Your task to perform on an android device: open chrome privacy settings Image 0: 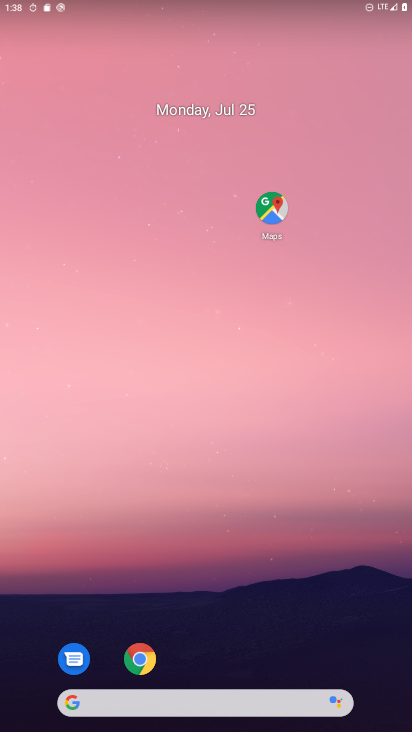
Step 0: click (149, 666)
Your task to perform on an android device: open chrome privacy settings Image 1: 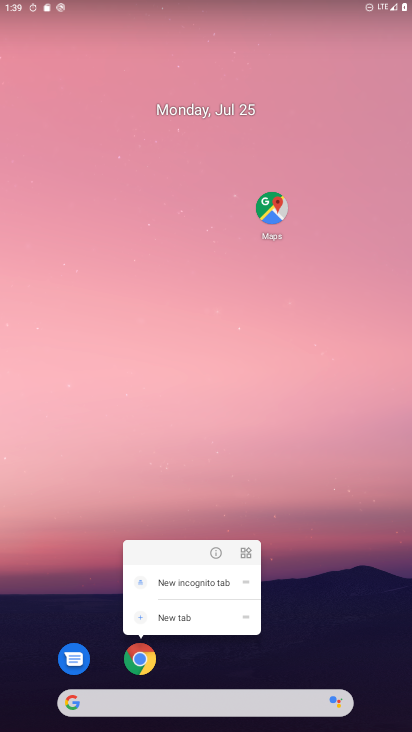
Step 1: click (134, 670)
Your task to perform on an android device: open chrome privacy settings Image 2: 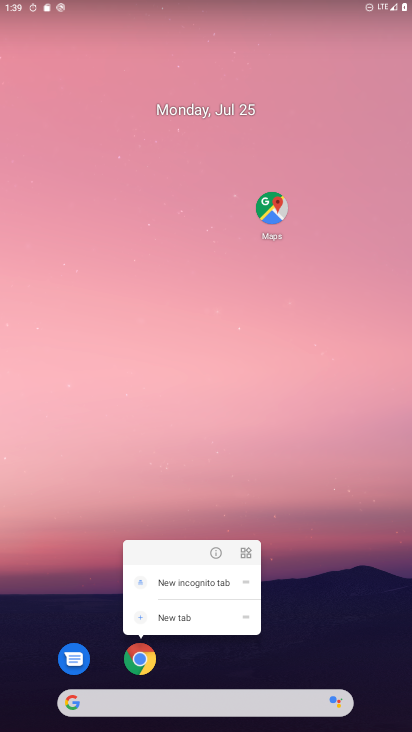
Step 2: click (151, 663)
Your task to perform on an android device: open chrome privacy settings Image 3: 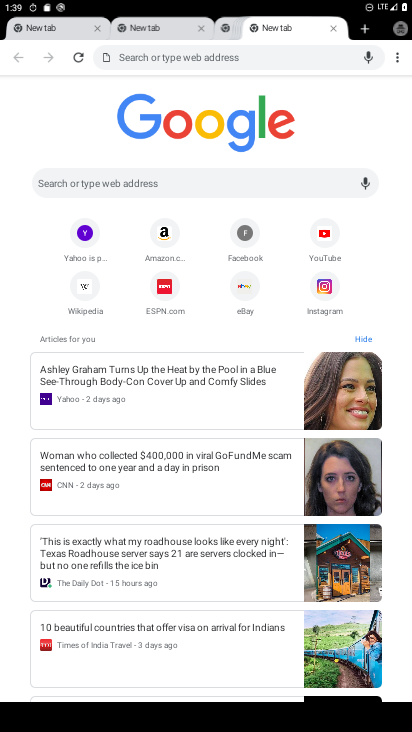
Step 3: click (398, 46)
Your task to perform on an android device: open chrome privacy settings Image 4: 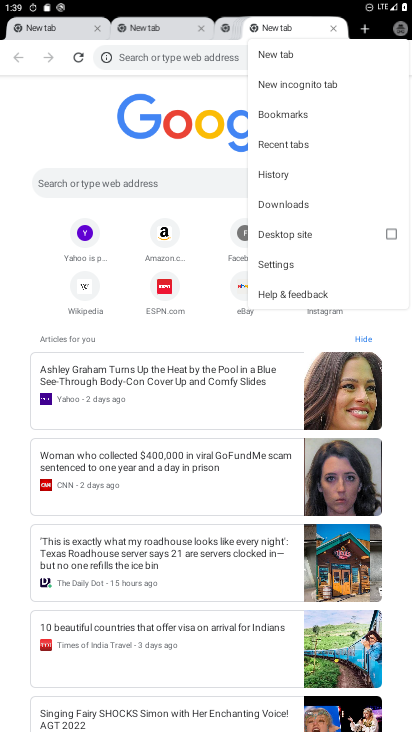
Step 4: click (286, 267)
Your task to perform on an android device: open chrome privacy settings Image 5: 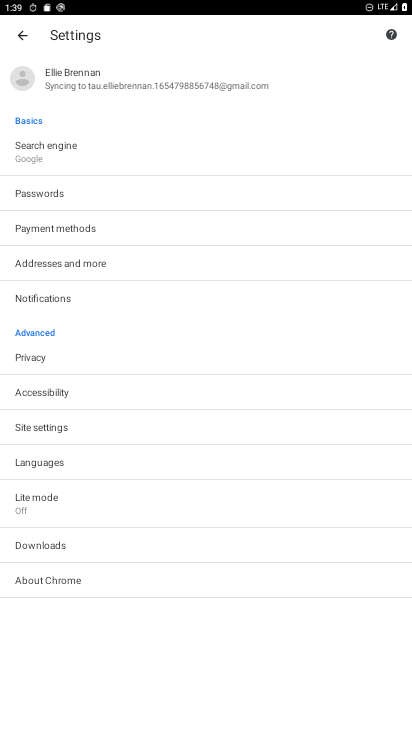
Step 5: click (49, 361)
Your task to perform on an android device: open chrome privacy settings Image 6: 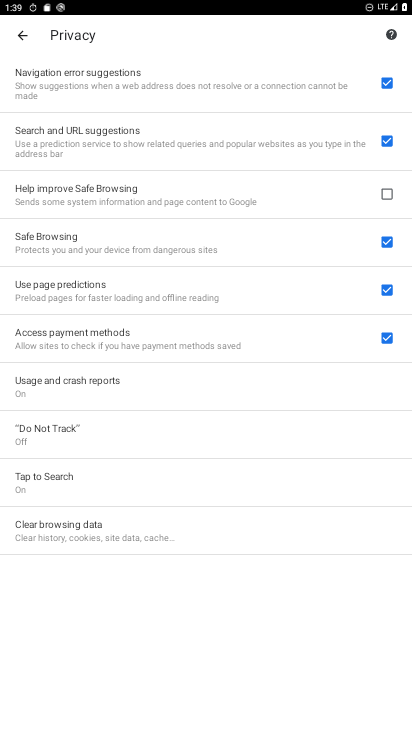
Step 6: task complete